Your task to perform on an android device: Open settings Image 0: 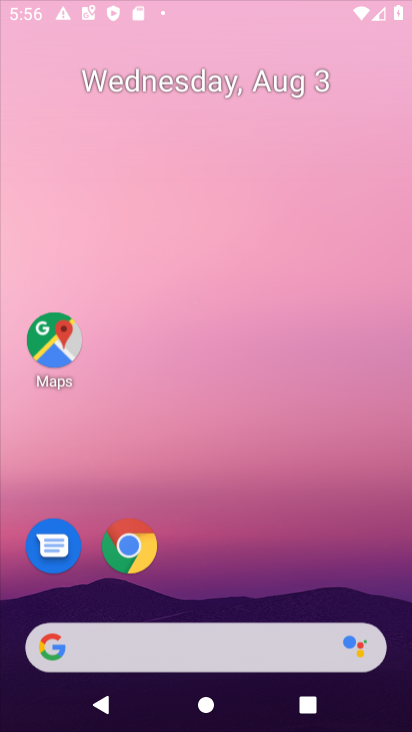
Step 0: press home button
Your task to perform on an android device: Open settings Image 1: 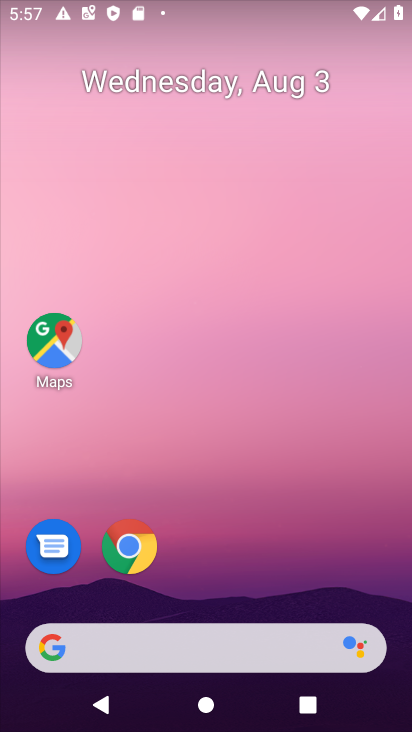
Step 1: drag from (288, 534) to (340, 0)
Your task to perform on an android device: Open settings Image 2: 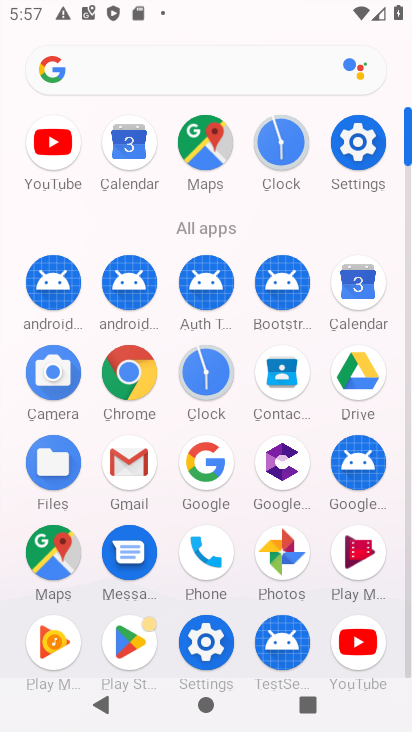
Step 2: click (362, 222)
Your task to perform on an android device: Open settings Image 3: 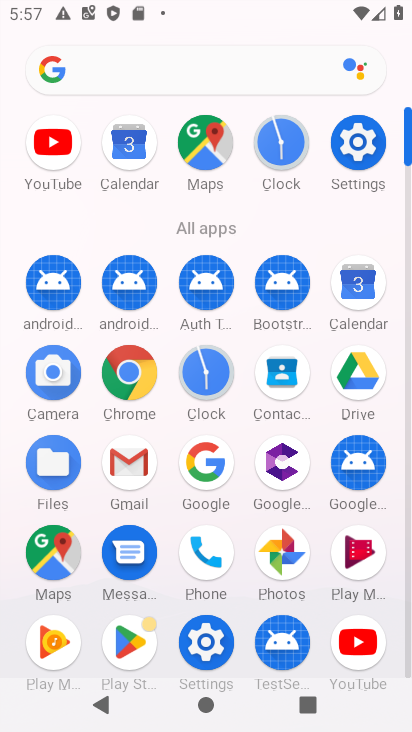
Step 3: click (376, 162)
Your task to perform on an android device: Open settings Image 4: 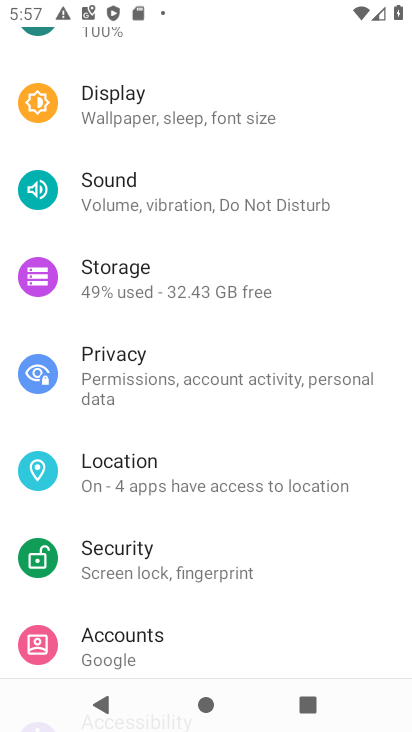
Step 4: task complete